Your task to perform on an android device: Open location settings Image 0: 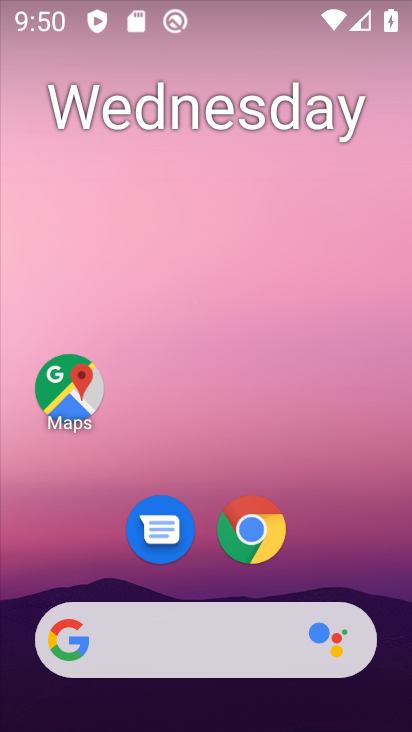
Step 0: drag from (292, 674) to (161, 124)
Your task to perform on an android device: Open location settings Image 1: 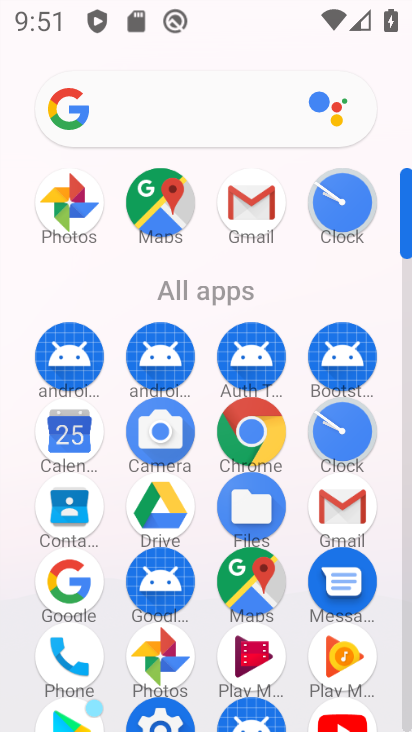
Step 1: drag from (200, 617) to (183, 216)
Your task to perform on an android device: Open location settings Image 2: 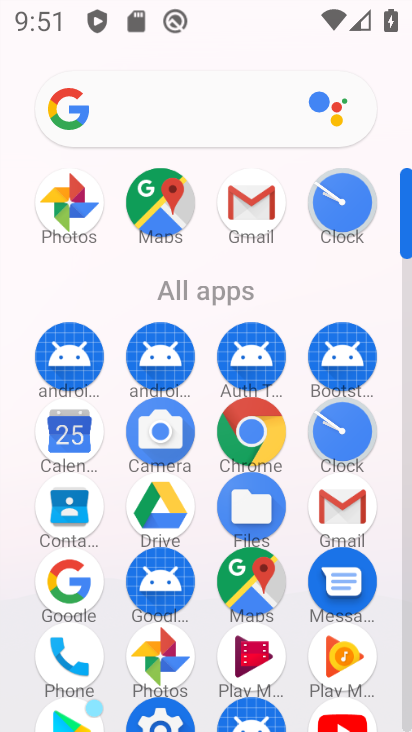
Step 2: drag from (215, 485) to (193, 154)
Your task to perform on an android device: Open location settings Image 3: 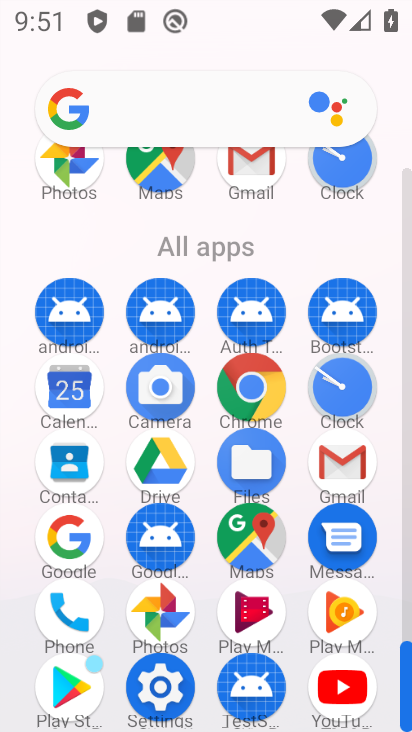
Step 3: drag from (202, 450) to (168, 143)
Your task to perform on an android device: Open location settings Image 4: 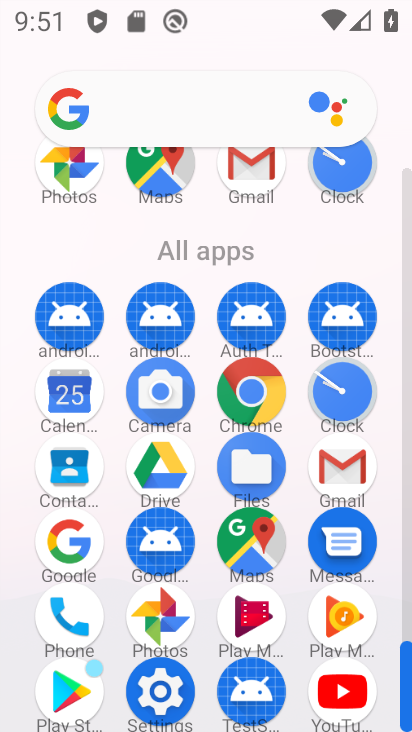
Step 4: drag from (159, 290) to (156, 60)
Your task to perform on an android device: Open location settings Image 5: 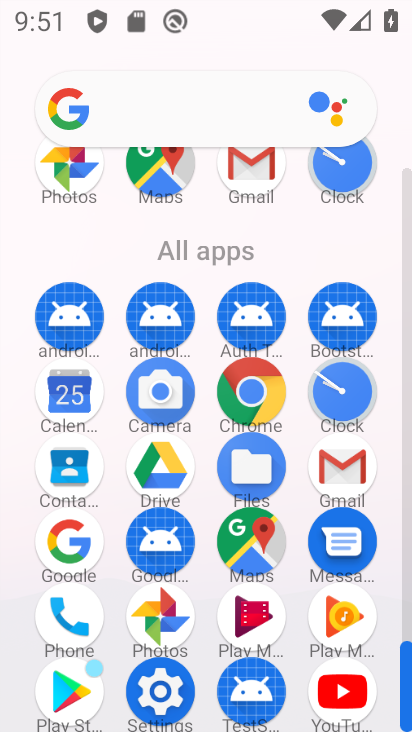
Step 5: click (168, 689)
Your task to perform on an android device: Open location settings Image 6: 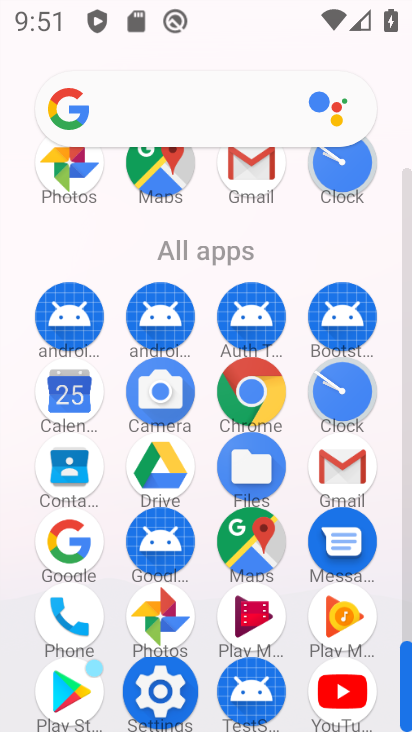
Step 6: click (168, 689)
Your task to perform on an android device: Open location settings Image 7: 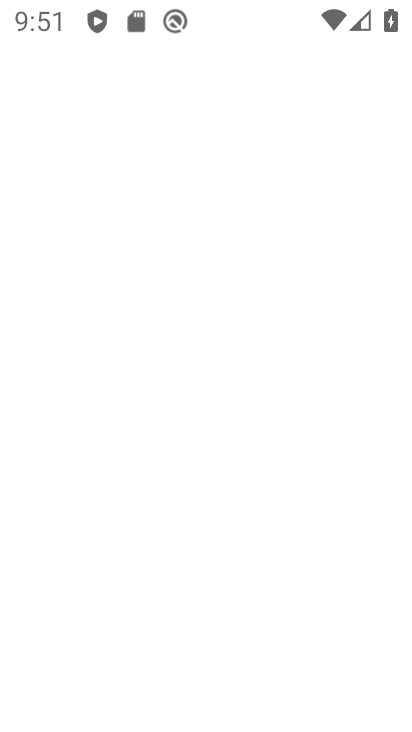
Step 7: click (168, 689)
Your task to perform on an android device: Open location settings Image 8: 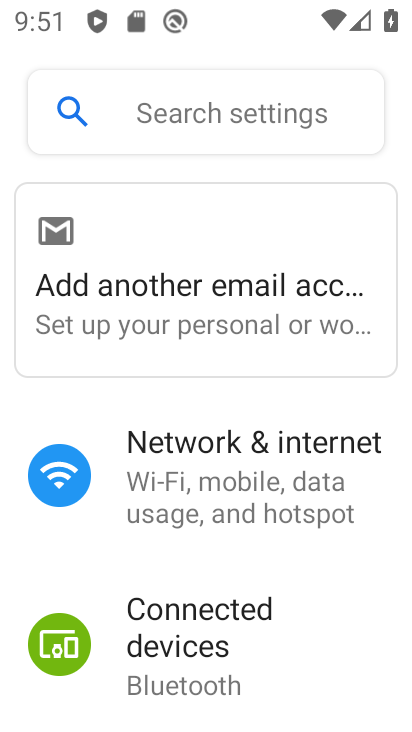
Step 8: drag from (197, 583) to (164, 189)
Your task to perform on an android device: Open location settings Image 9: 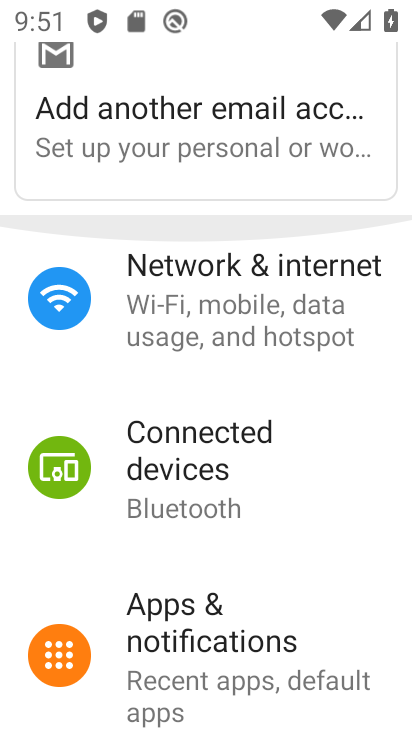
Step 9: drag from (200, 514) to (154, 159)
Your task to perform on an android device: Open location settings Image 10: 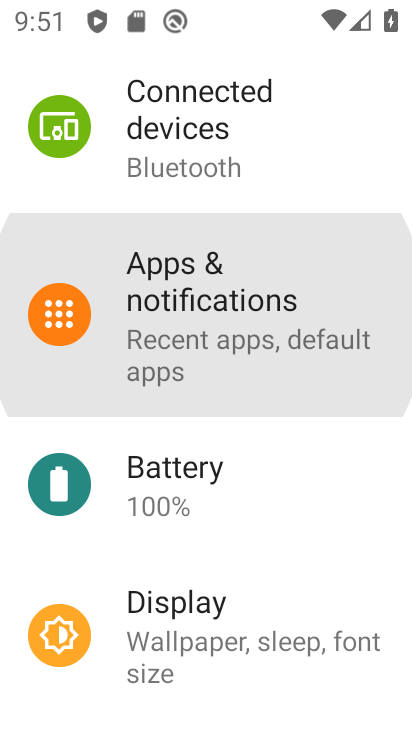
Step 10: drag from (173, 414) to (154, 148)
Your task to perform on an android device: Open location settings Image 11: 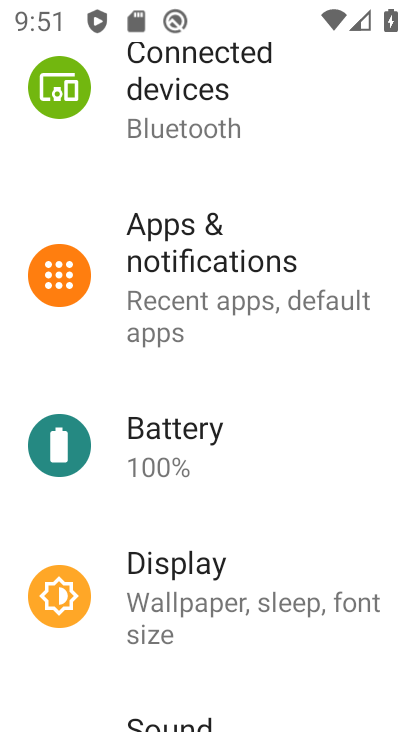
Step 11: drag from (175, 434) to (209, 102)
Your task to perform on an android device: Open location settings Image 12: 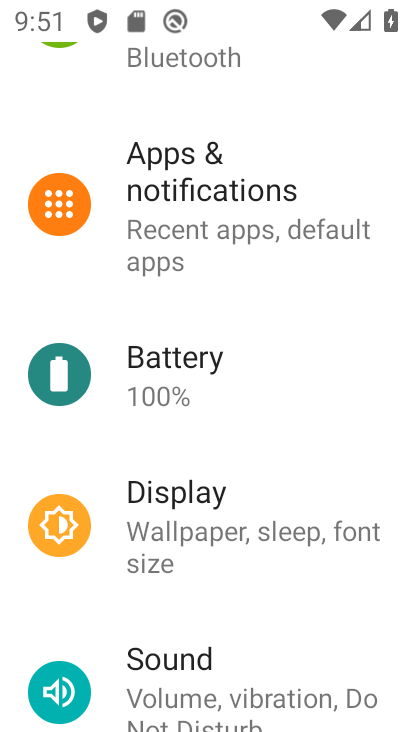
Step 12: drag from (223, 446) to (245, 188)
Your task to perform on an android device: Open location settings Image 13: 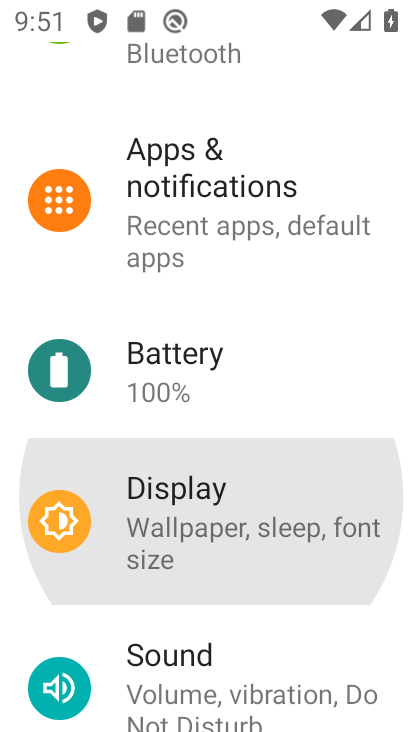
Step 13: drag from (236, 521) to (213, 99)
Your task to perform on an android device: Open location settings Image 14: 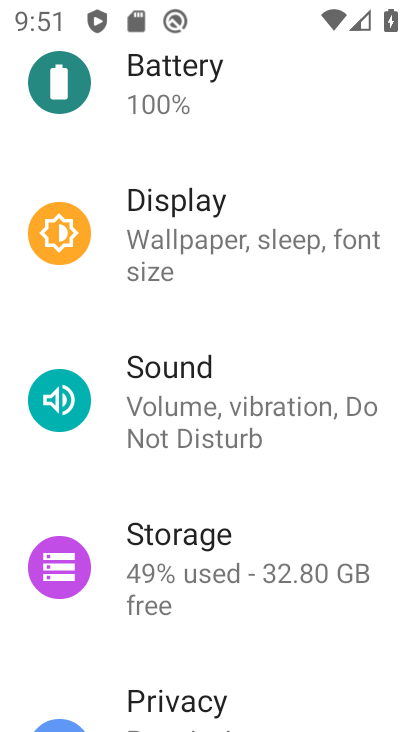
Step 14: drag from (213, 441) to (162, 62)
Your task to perform on an android device: Open location settings Image 15: 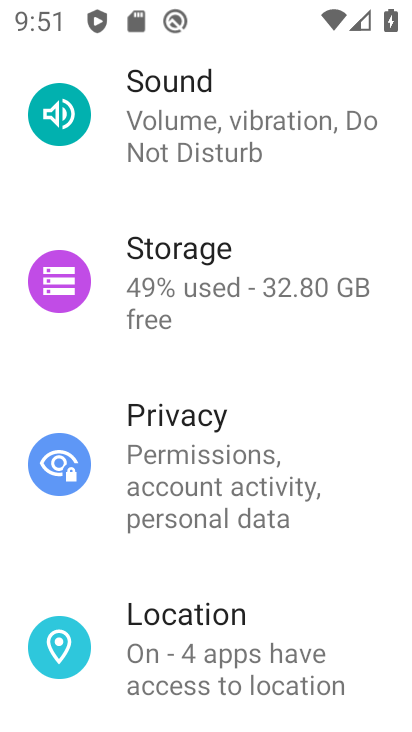
Step 15: click (137, 32)
Your task to perform on an android device: Open location settings Image 16: 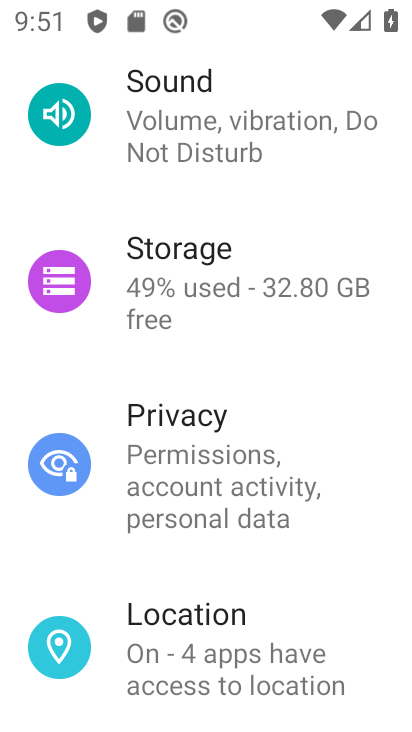
Step 16: drag from (214, 432) to (209, 190)
Your task to perform on an android device: Open location settings Image 17: 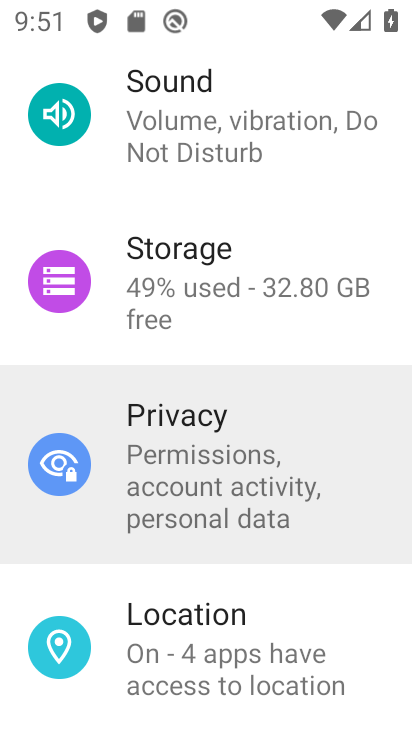
Step 17: drag from (164, 364) to (174, 73)
Your task to perform on an android device: Open location settings Image 18: 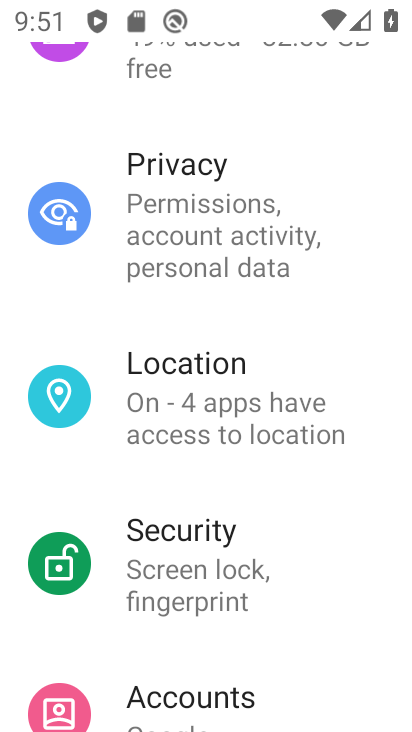
Step 18: click (178, 86)
Your task to perform on an android device: Open location settings Image 19: 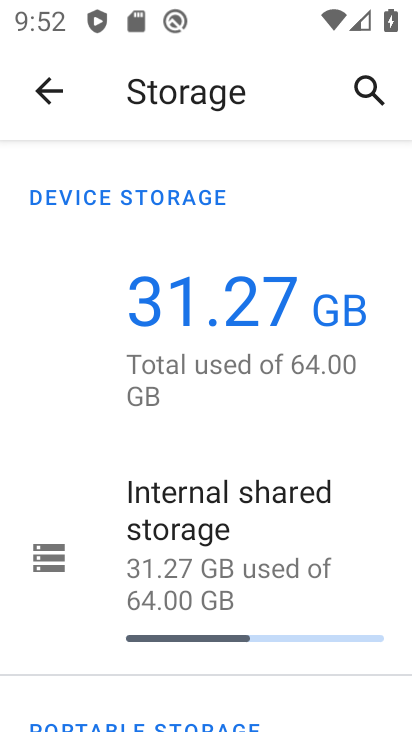
Step 19: click (203, 639)
Your task to perform on an android device: Open location settings Image 20: 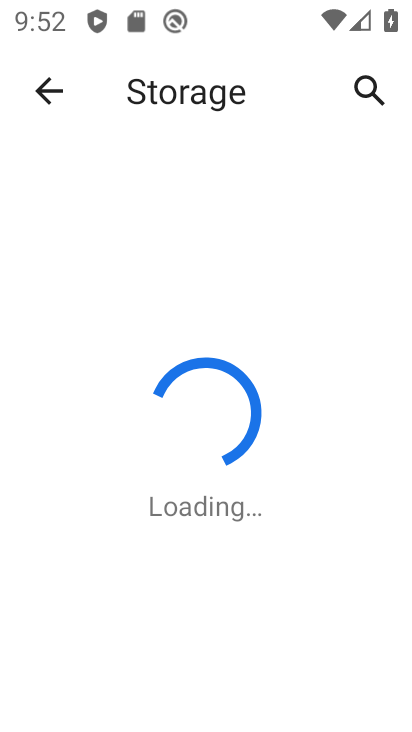
Step 20: drag from (196, 535) to (152, 41)
Your task to perform on an android device: Open location settings Image 21: 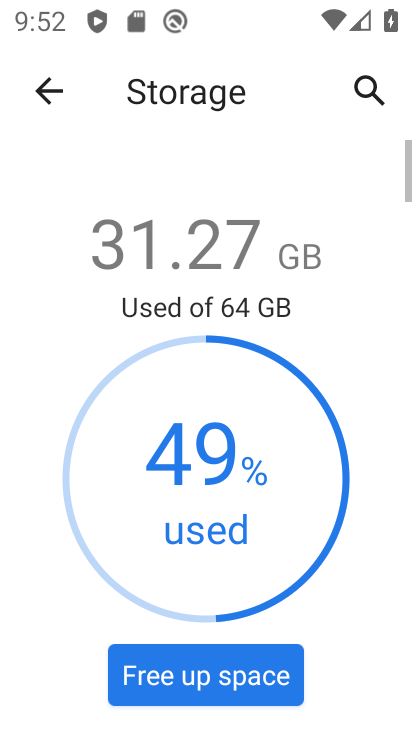
Step 21: click (44, 81)
Your task to perform on an android device: Open location settings Image 22: 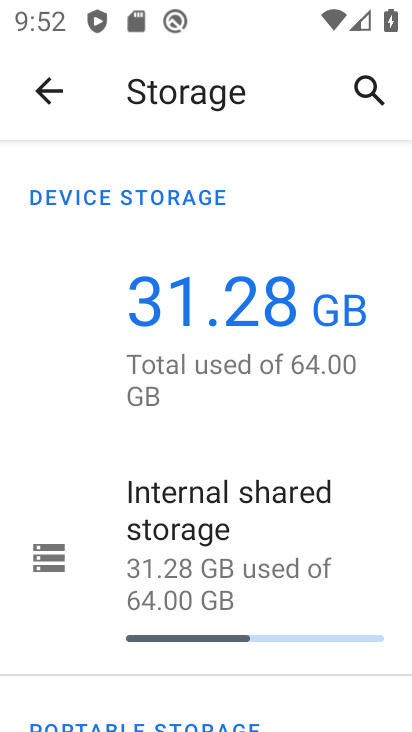
Step 22: task complete